Your task to perform on an android device: set the timer Image 0: 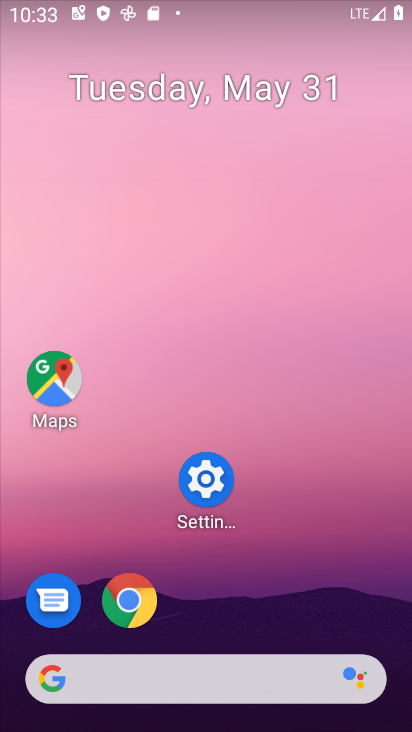
Step 0: drag from (228, 703) to (283, 244)
Your task to perform on an android device: set the timer Image 1: 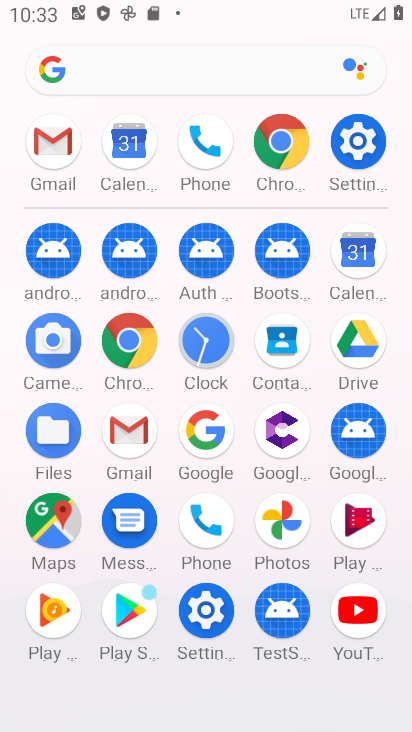
Step 1: click (207, 363)
Your task to perform on an android device: set the timer Image 2: 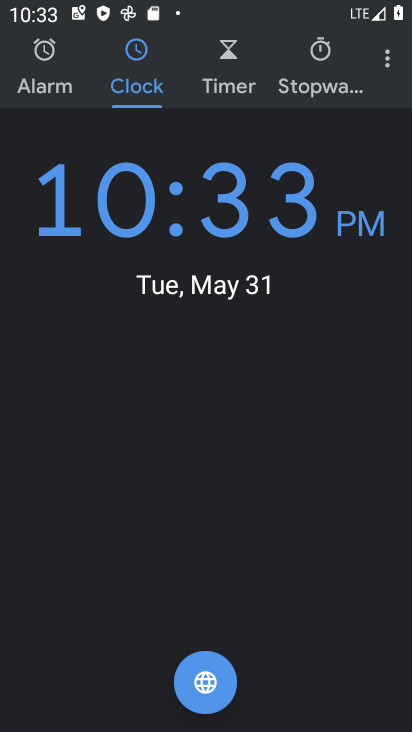
Step 2: click (379, 67)
Your task to perform on an android device: set the timer Image 3: 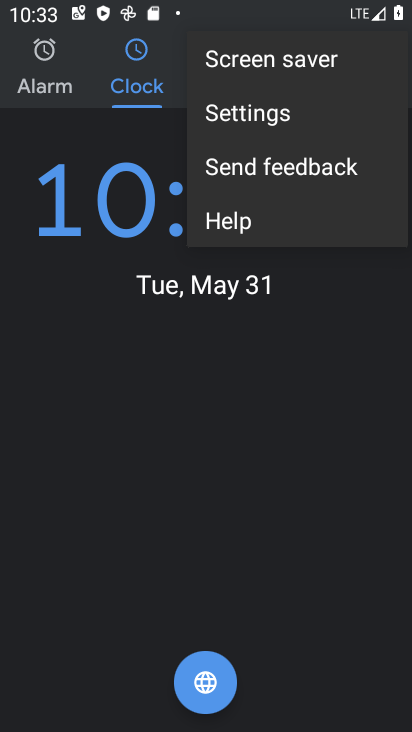
Step 3: click (261, 115)
Your task to perform on an android device: set the timer Image 4: 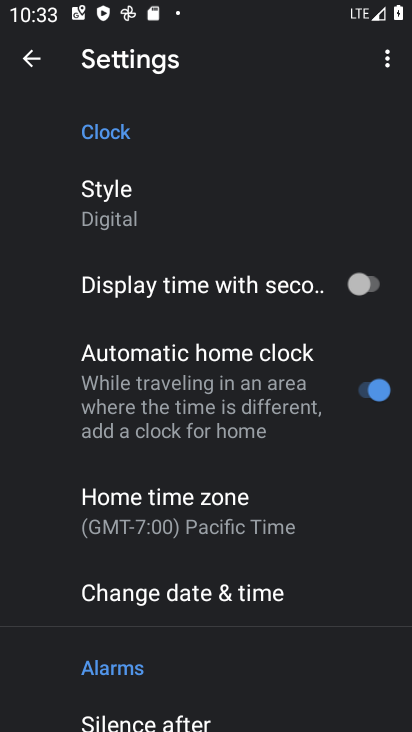
Step 4: drag from (197, 630) to (224, 359)
Your task to perform on an android device: set the timer Image 5: 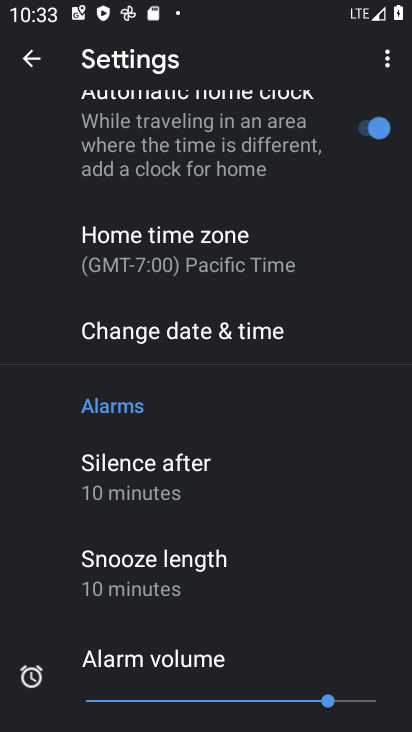
Step 5: click (39, 74)
Your task to perform on an android device: set the timer Image 6: 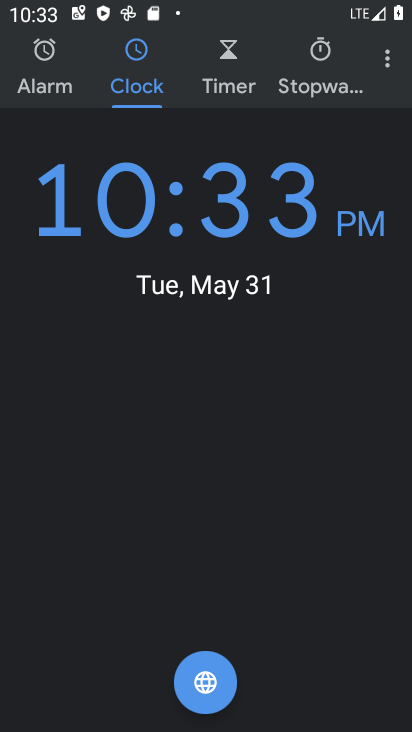
Step 6: click (213, 84)
Your task to perform on an android device: set the timer Image 7: 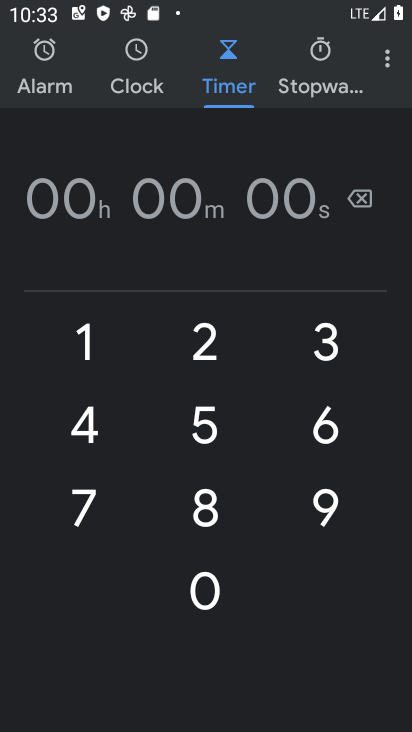
Step 7: click (215, 349)
Your task to perform on an android device: set the timer Image 8: 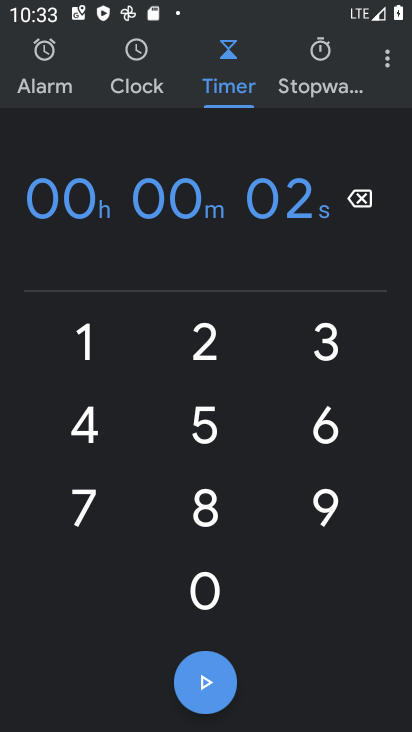
Step 8: click (206, 428)
Your task to perform on an android device: set the timer Image 9: 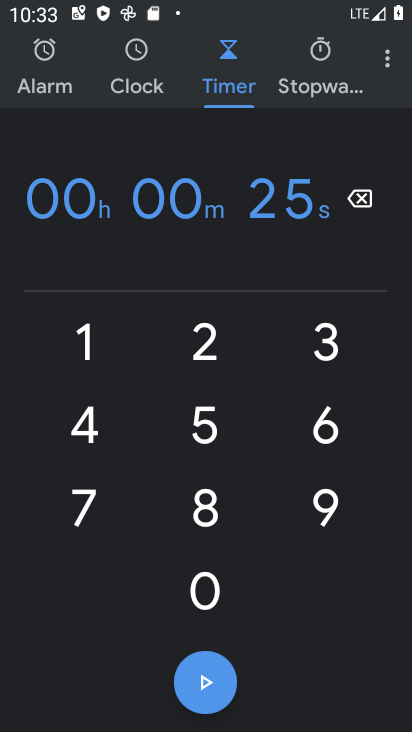
Step 9: click (218, 478)
Your task to perform on an android device: set the timer Image 10: 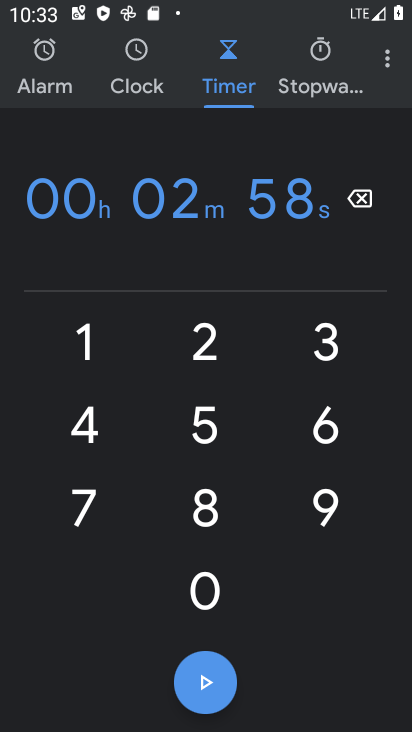
Step 10: click (337, 423)
Your task to perform on an android device: set the timer Image 11: 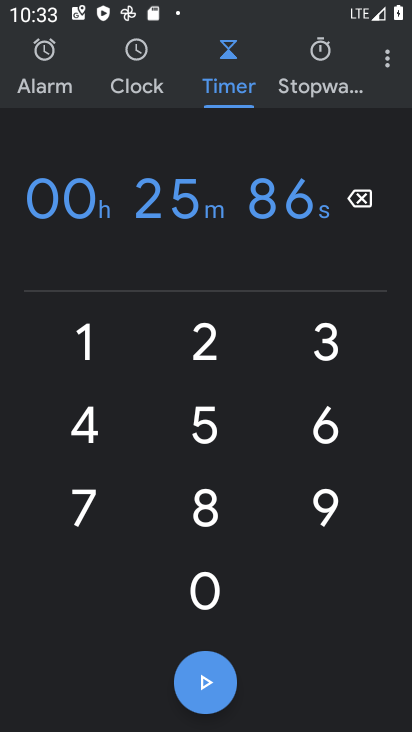
Step 11: task complete